Your task to perform on an android device: check out phone information Image 0: 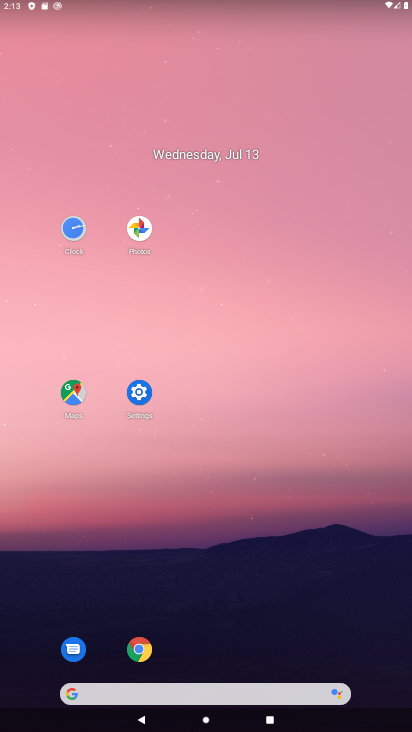
Step 0: click (139, 381)
Your task to perform on an android device: check out phone information Image 1: 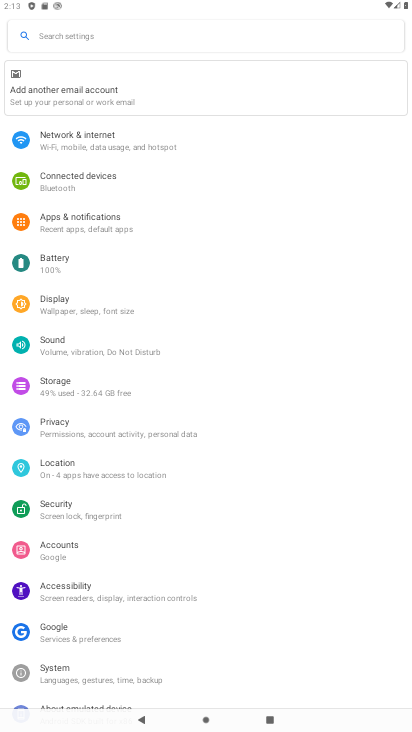
Step 1: drag from (238, 636) to (223, 186)
Your task to perform on an android device: check out phone information Image 2: 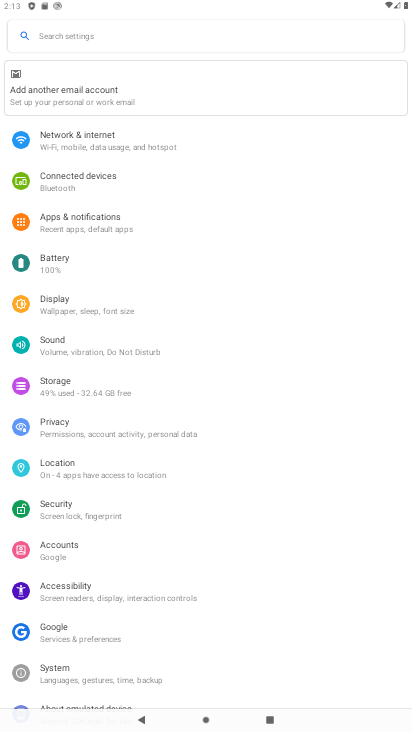
Step 2: drag from (307, 674) to (351, 245)
Your task to perform on an android device: check out phone information Image 3: 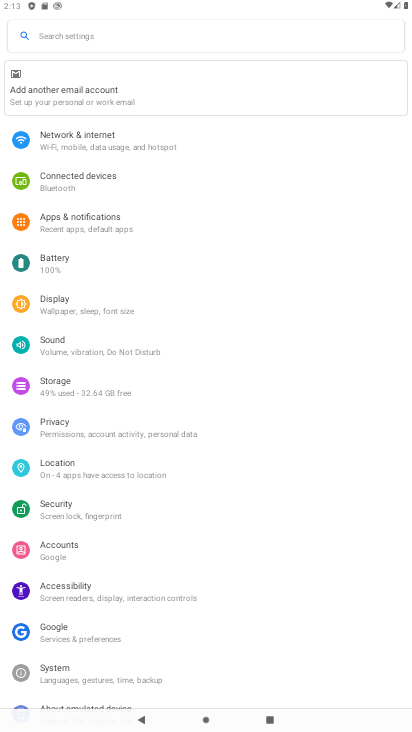
Step 3: click (134, 701)
Your task to perform on an android device: check out phone information Image 4: 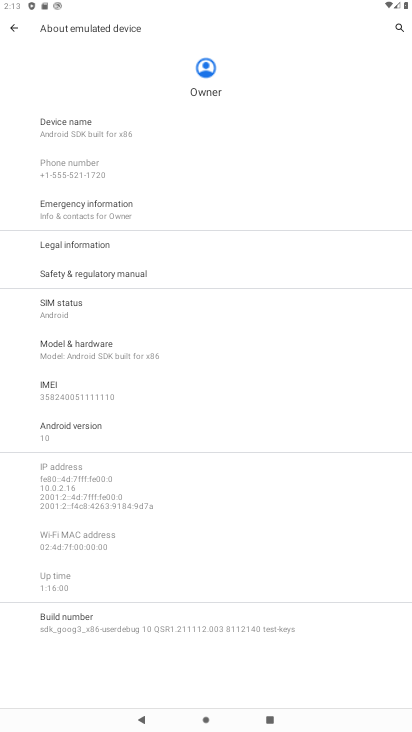
Step 4: click (131, 348)
Your task to perform on an android device: check out phone information Image 5: 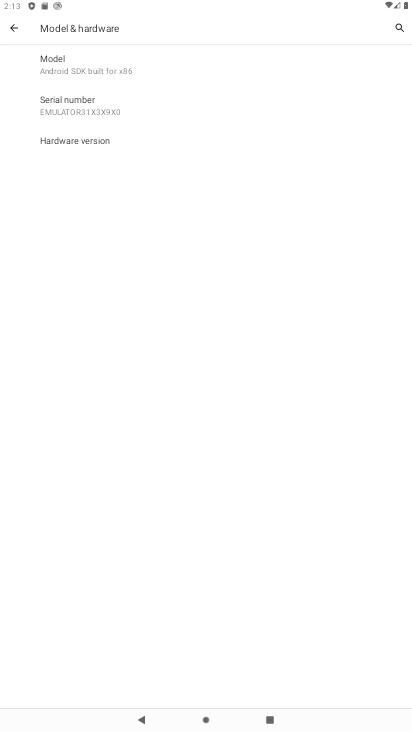
Step 5: task complete